Your task to perform on an android device: Open the calendar and show me this week's events Image 0: 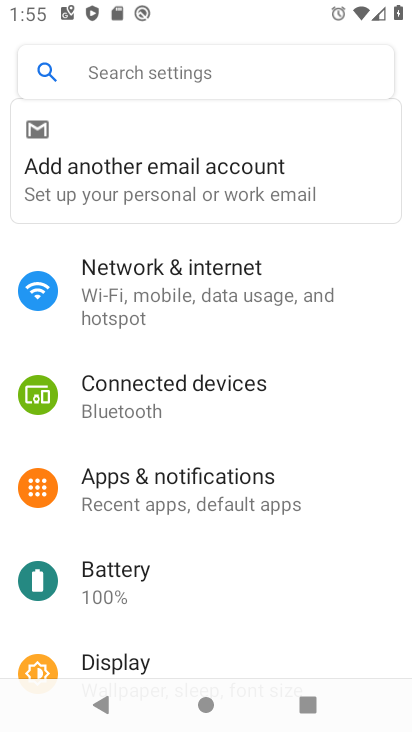
Step 0: press home button
Your task to perform on an android device: Open the calendar and show me this week's events Image 1: 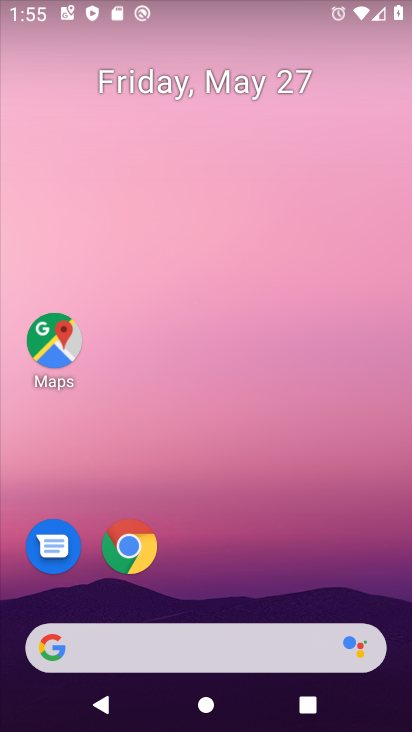
Step 1: drag from (292, 676) to (242, 125)
Your task to perform on an android device: Open the calendar and show me this week's events Image 2: 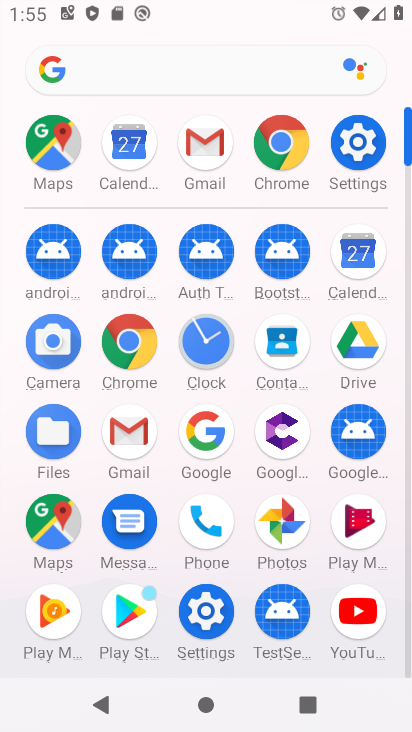
Step 2: click (358, 248)
Your task to perform on an android device: Open the calendar and show me this week's events Image 3: 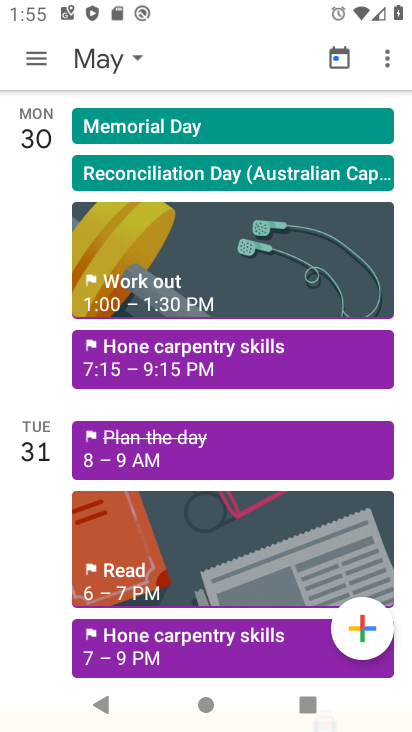
Step 3: click (46, 63)
Your task to perform on an android device: Open the calendar and show me this week's events Image 4: 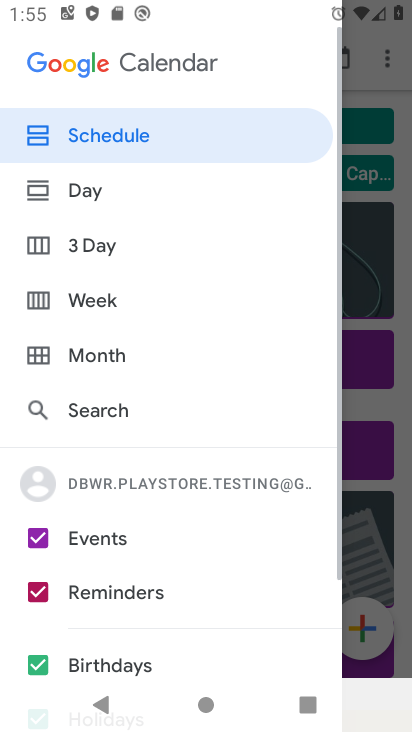
Step 4: click (94, 135)
Your task to perform on an android device: Open the calendar and show me this week's events Image 5: 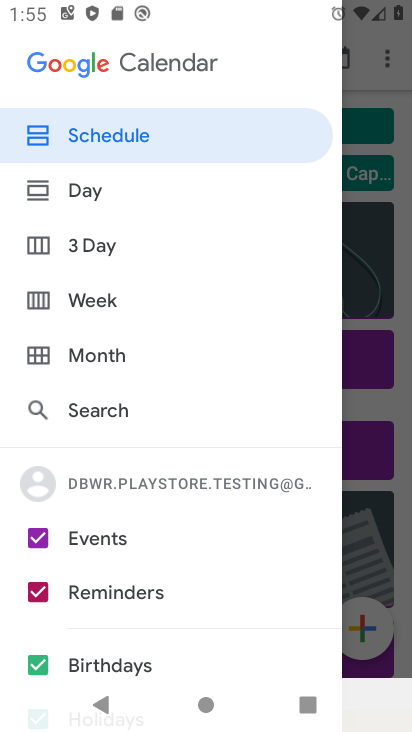
Step 5: click (87, 145)
Your task to perform on an android device: Open the calendar and show me this week's events Image 6: 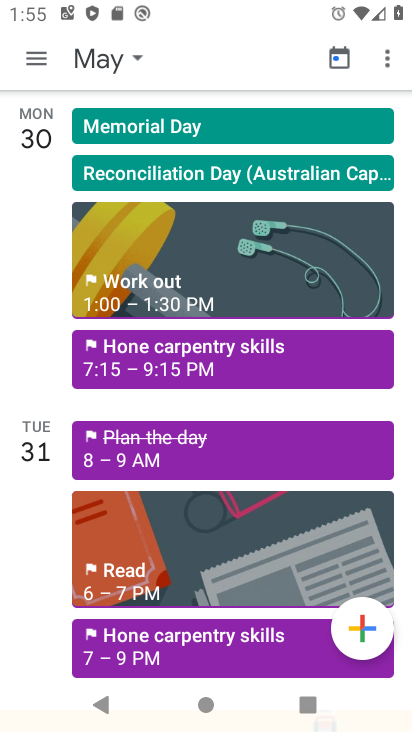
Step 6: task complete